Your task to perform on an android device: Open Wikipedia Image 0: 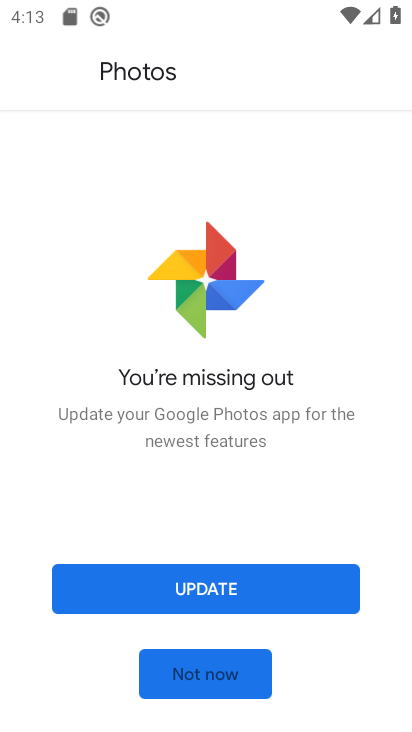
Step 0: press home button
Your task to perform on an android device: Open Wikipedia Image 1: 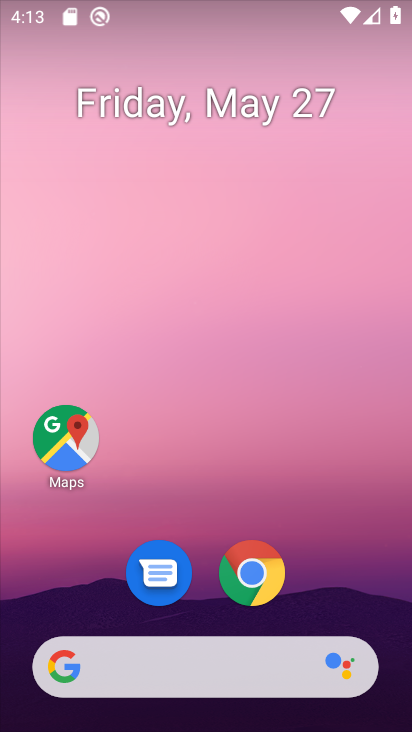
Step 1: click (252, 572)
Your task to perform on an android device: Open Wikipedia Image 2: 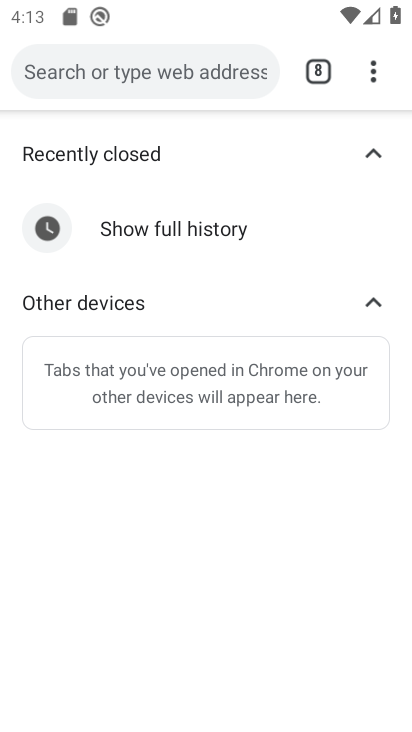
Step 2: click (371, 74)
Your task to perform on an android device: Open Wikipedia Image 3: 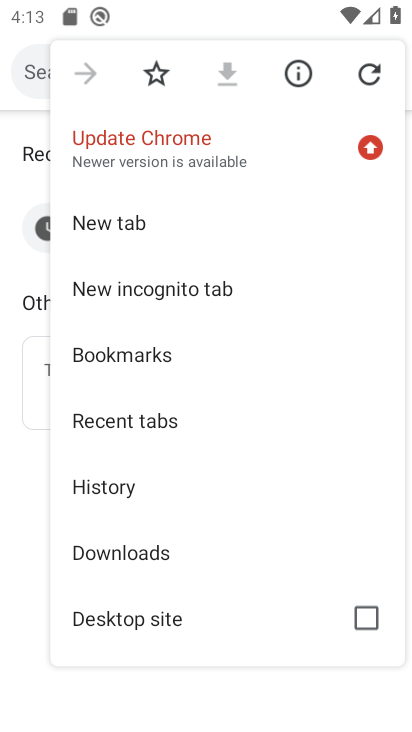
Step 3: click (210, 224)
Your task to perform on an android device: Open Wikipedia Image 4: 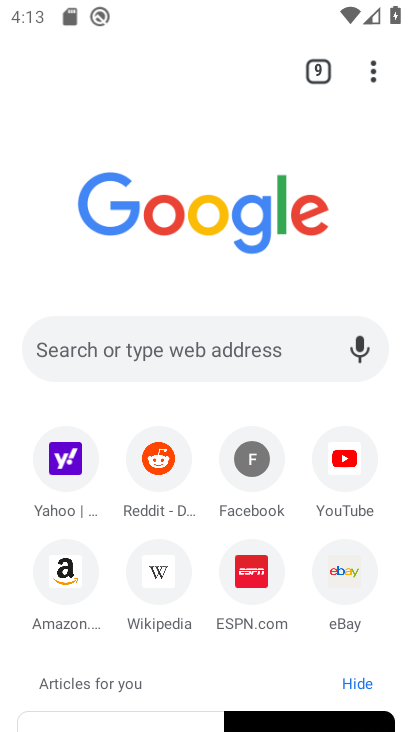
Step 4: click (165, 569)
Your task to perform on an android device: Open Wikipedia Image 5: 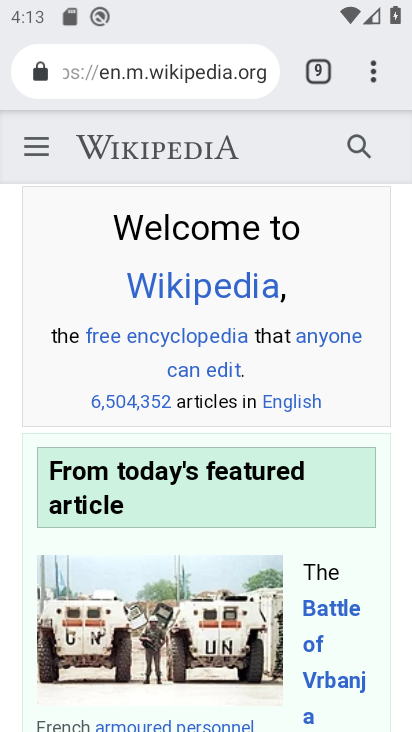
Step 5: task complete